Your task to perform on an android device: Set the phone to "Do not disturb". Image 0: 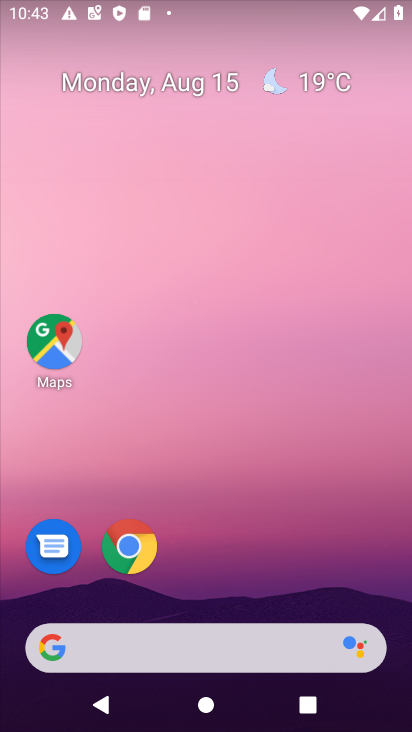
Step 0: drag from (232, 601) to (219, 14)
Your task to perform on an android device: Set the phone to "Do not disturb". Image 1: 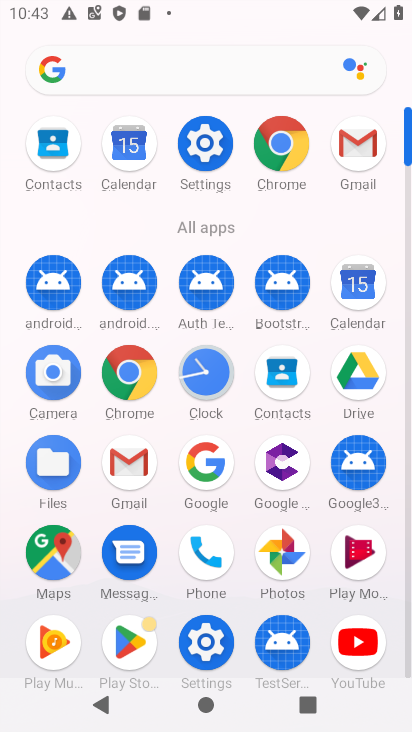
Step 1: click (208, 639)
Your task to perform on an android device: Set the phone to "Do not disturb". Image 2: 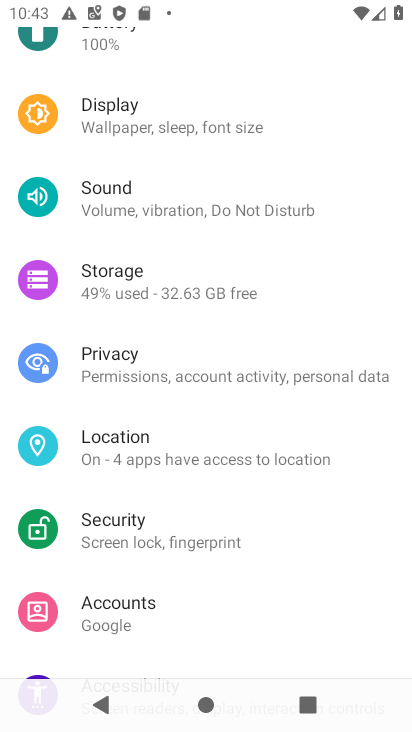
Step 2: drag from (193, 263) to (191, 521)
Your task to perform on an android device: Set the phone to "Do not disturb". Image 3: 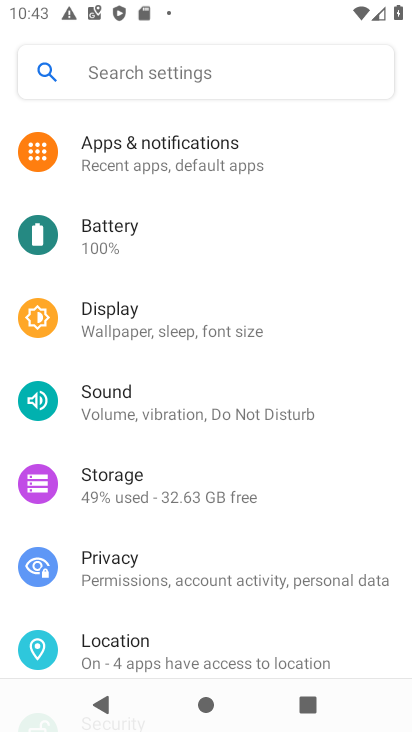
Step 3: click (209, 411)
Your task to perform on an android device: Set the phone to "Do not disturb". Image 4: 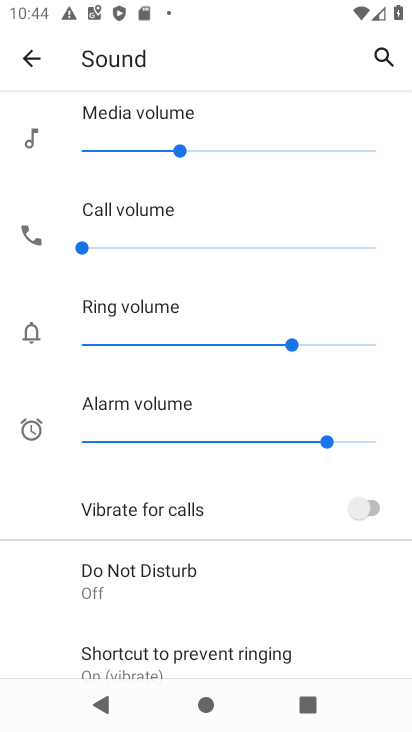
Step 4: drag from (231, 584) to (216, 198)
Your task to perform on an android device: Set the phone to "Do not disturb". Image 5: 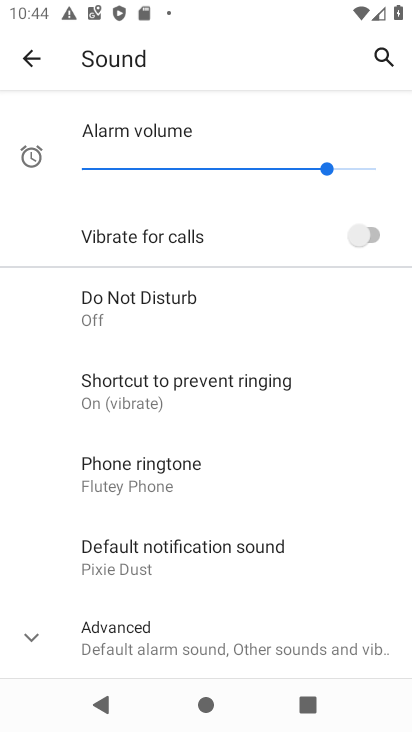
Step 5: click (98, 302)
Your task to perform on an android device: Set the phone to "Do not disturb". Image 6: 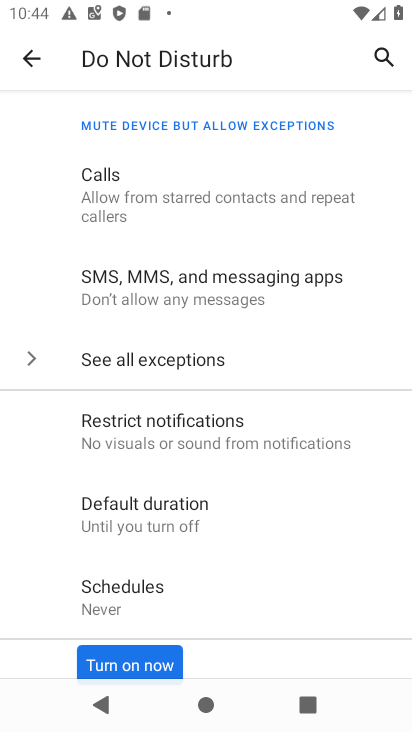
Step 6: click (146, 662)
Your task to perform on an android device: Set the phone to "Do not disturb". Image 7: 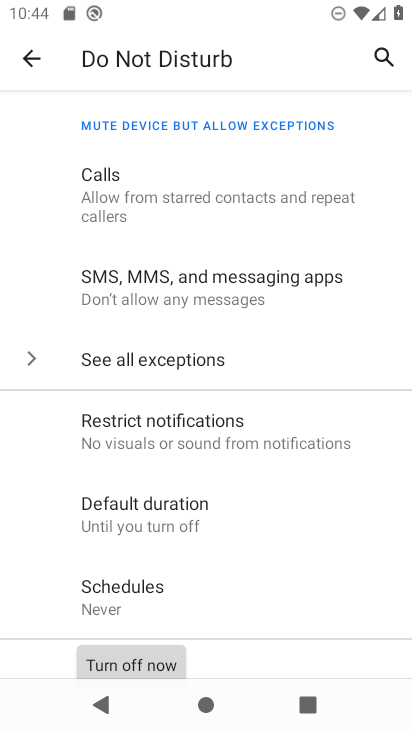
Step 7: task complete